Your task to perform on an android device: Go to Wikipedia Image 0: 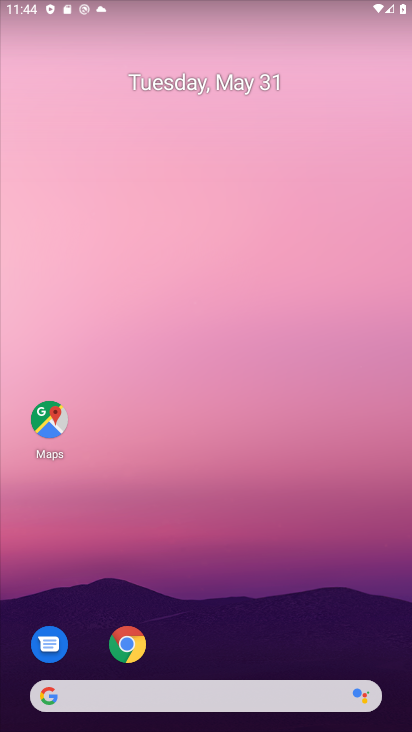
Step 0: drag from (324, 649) to (343, 197)
Your task to perform on an android device: Go to Wikipedia Image 1: 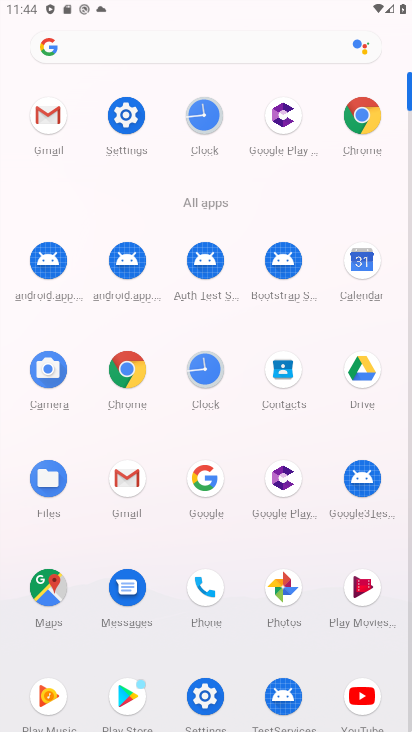
Step 1: click (118, 395)
Your task to perform on an android device: Go to Wikipedia Image 2: 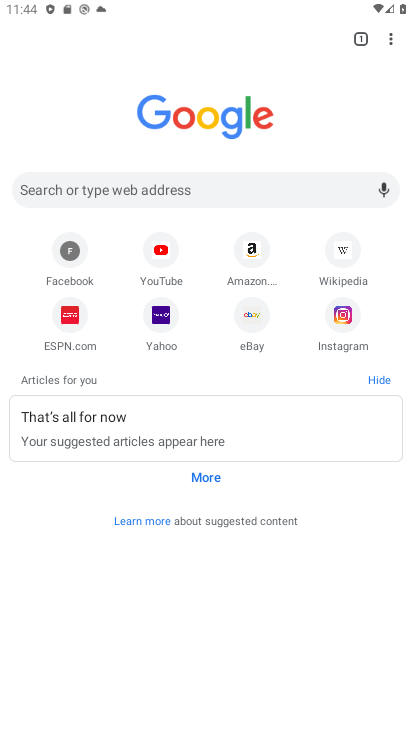
Step 2: click (349, 261)
Your task to perform on an android device: Go to Wikipedia Image 3: 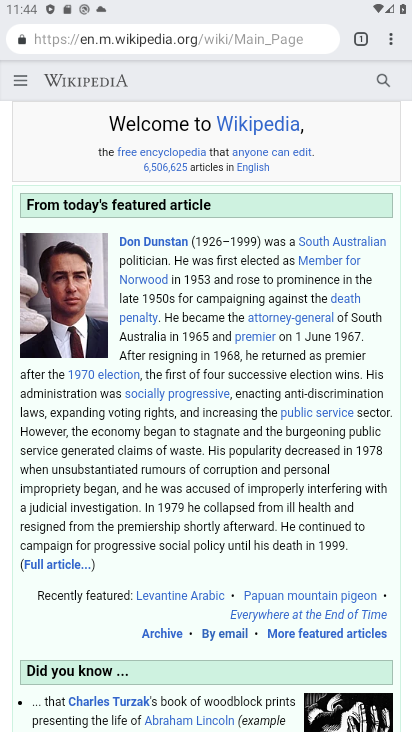
Step 3: task complete